Your task to perform on an android device: show emergency info Image 0: 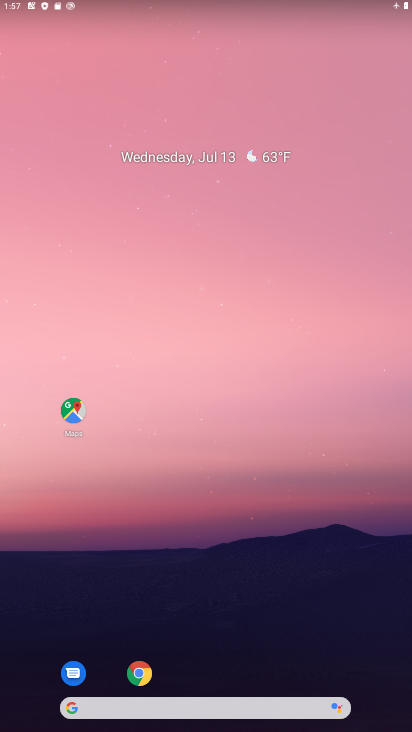
Step 0: drag from (263, 579) to (179, 176)
Your task to perform on an android device: show emergency info Image 1: 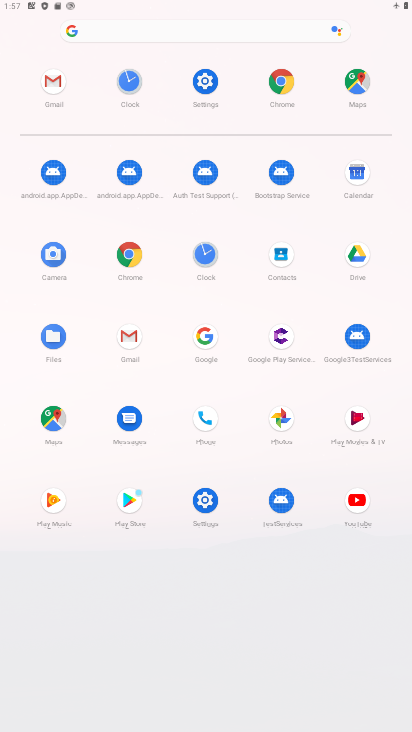
Step 1: click (199, 77)
Your task to perform on an android device: show emergency info Image 2: 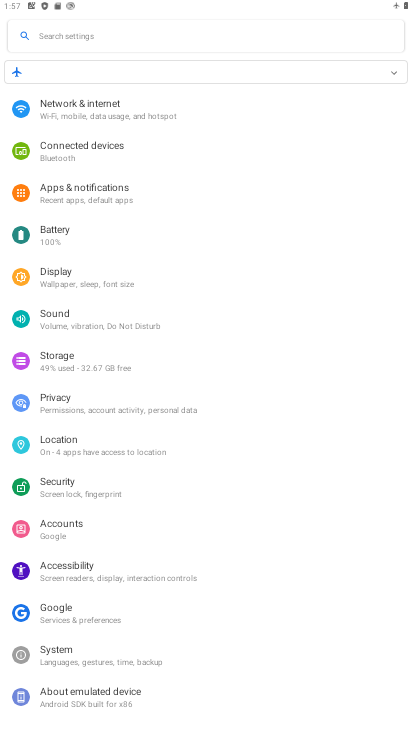
Step 2: click (114, 695)
Your task to perform on an android device: show emergency info Image 3: 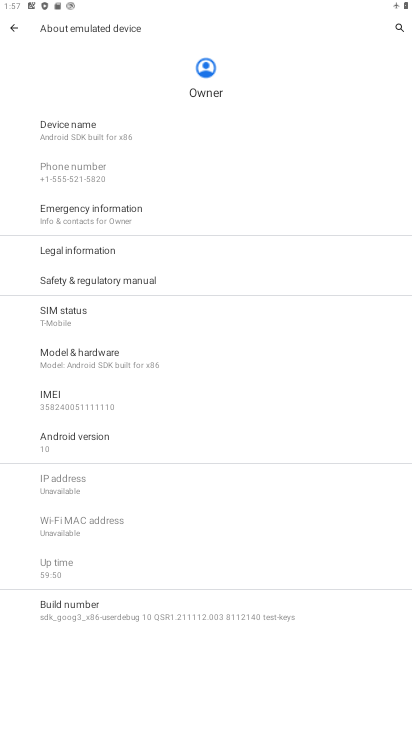
Step 3: click (106, 218)
Your task to perform on an android device: show emergency info Image 4: 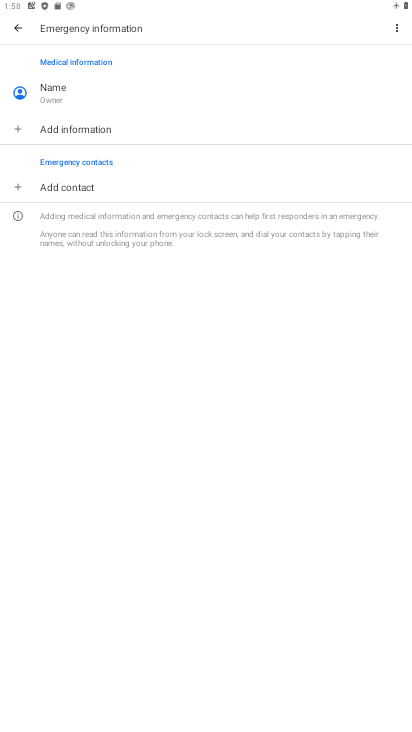
Step 4: task complete